Your task to perform on an android device: Open the web browser Image 0: 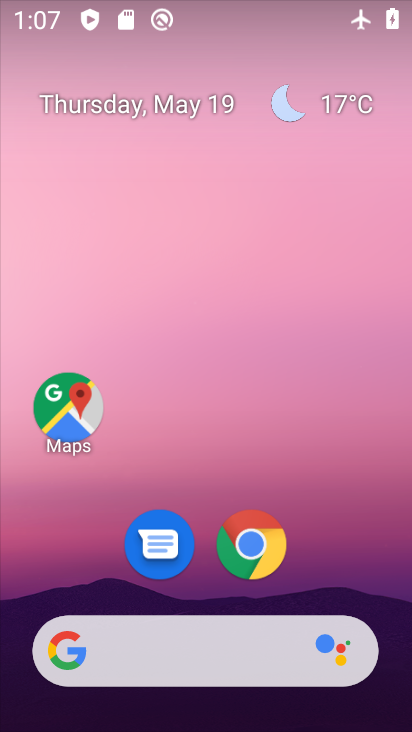
Step 0: click (243, 552)
Your task to perform on an android device: Open the web browser Image 1: 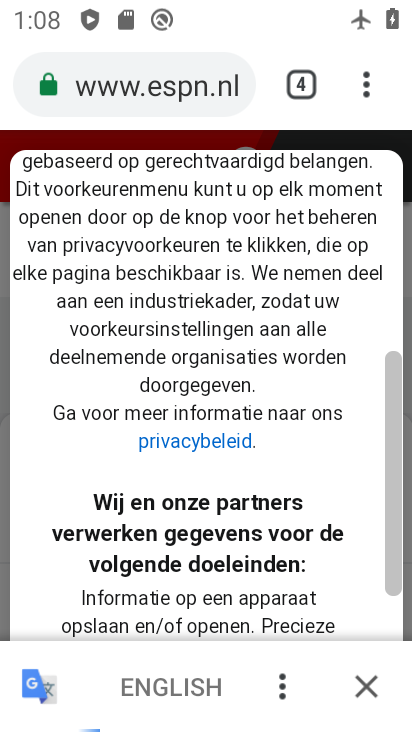
Step 1: task complete